Your task to perform on an android device: Show me productivity apps on the Play Store Image 0: 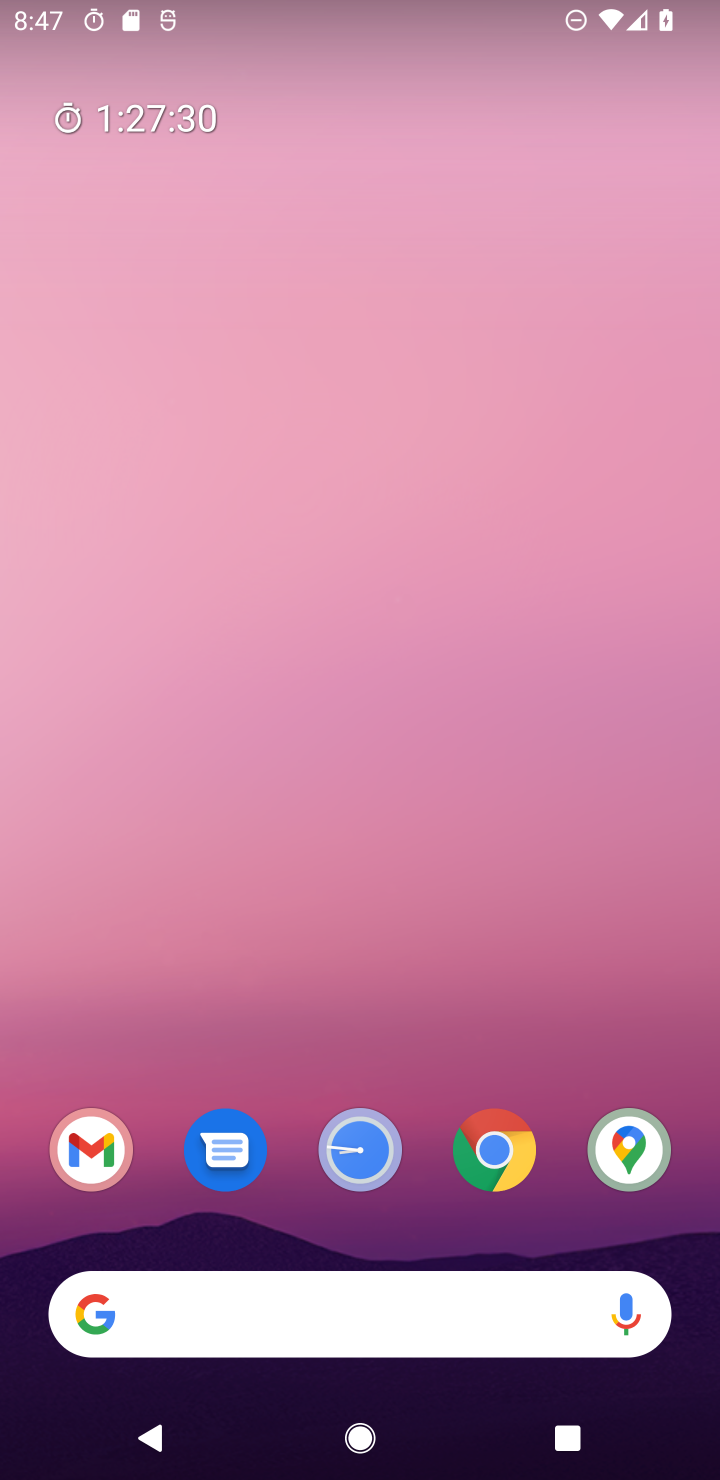
Step 0: drag from (477, 929) to (556, 283)
Your task to perform on an android device: Show me productivity apps on the Play Store Image 1: 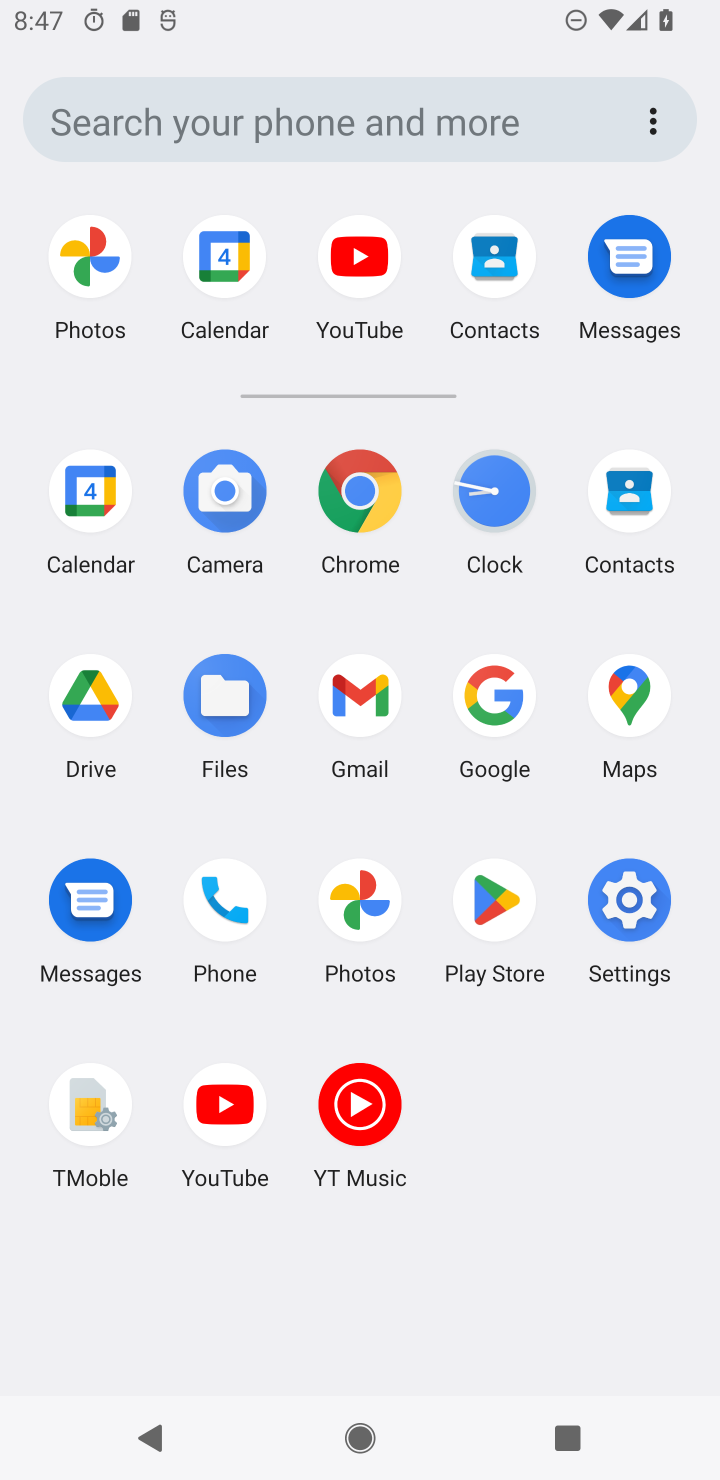
Step 1: click (511, 911)
Your task to perform on an android device: Show me productivity apps on the Play Store Image 2: 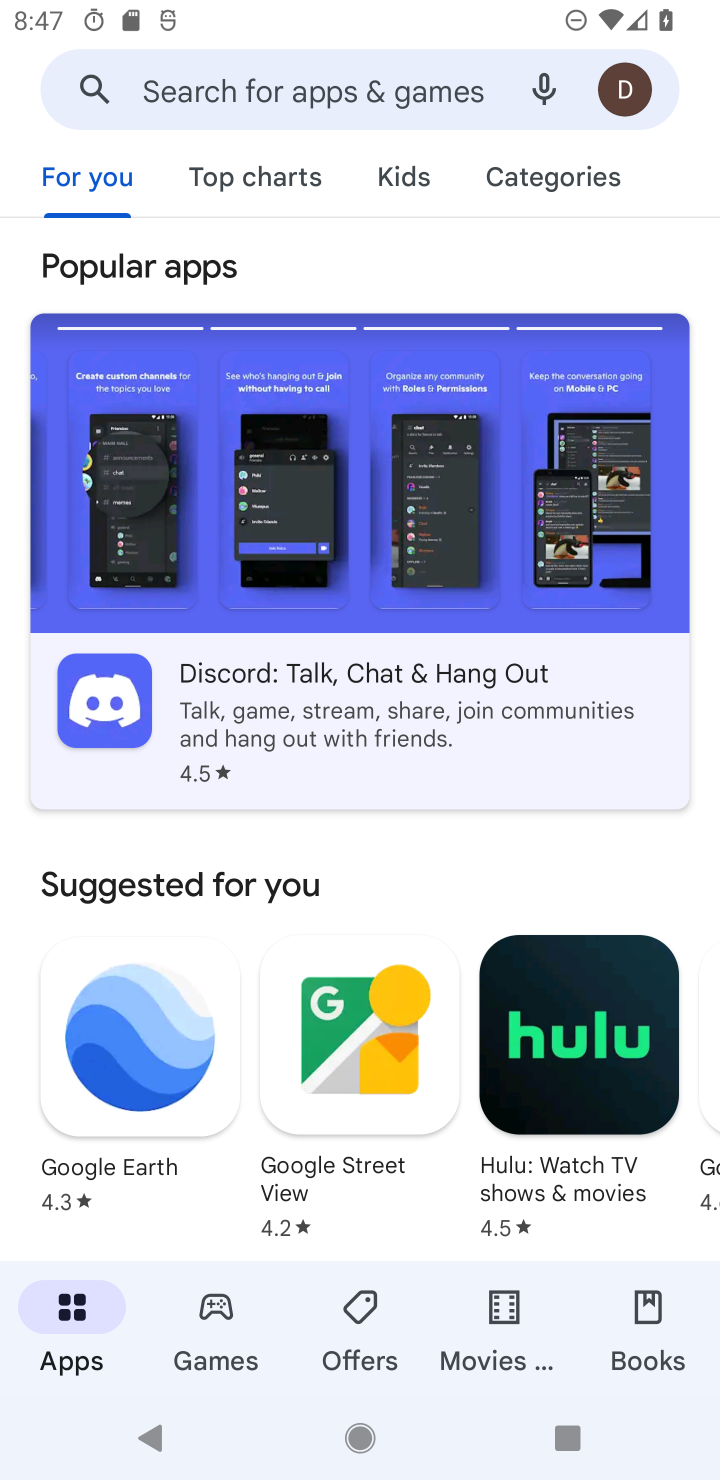
Step 2: drag from (388, 1003) to (377, 273)
Your task to perform on an android device: Show me productivity apps on the Play Store Image 3: 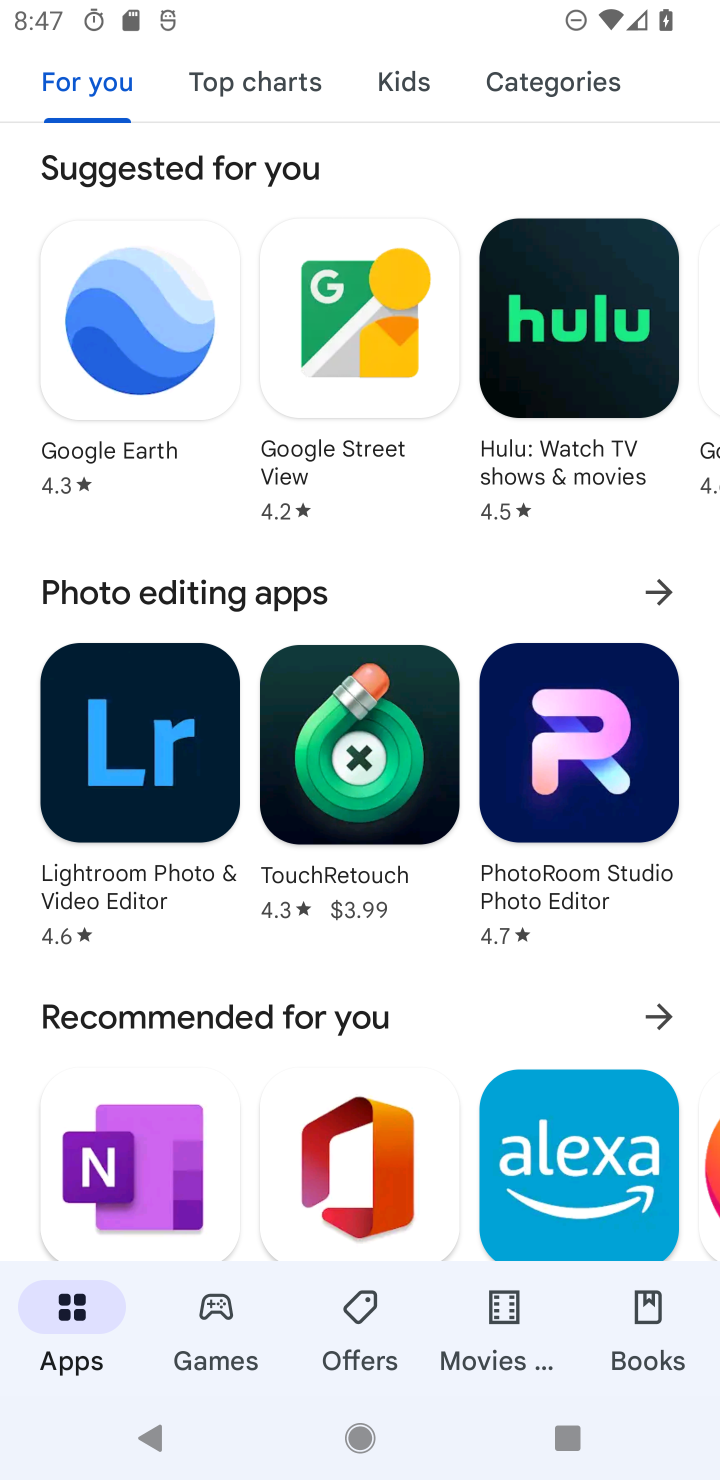
Step 3: drag from (369, 1109) to (556, 190)
Your task to perform on an android device: Show me productivity apps on the Play Store Image 4: 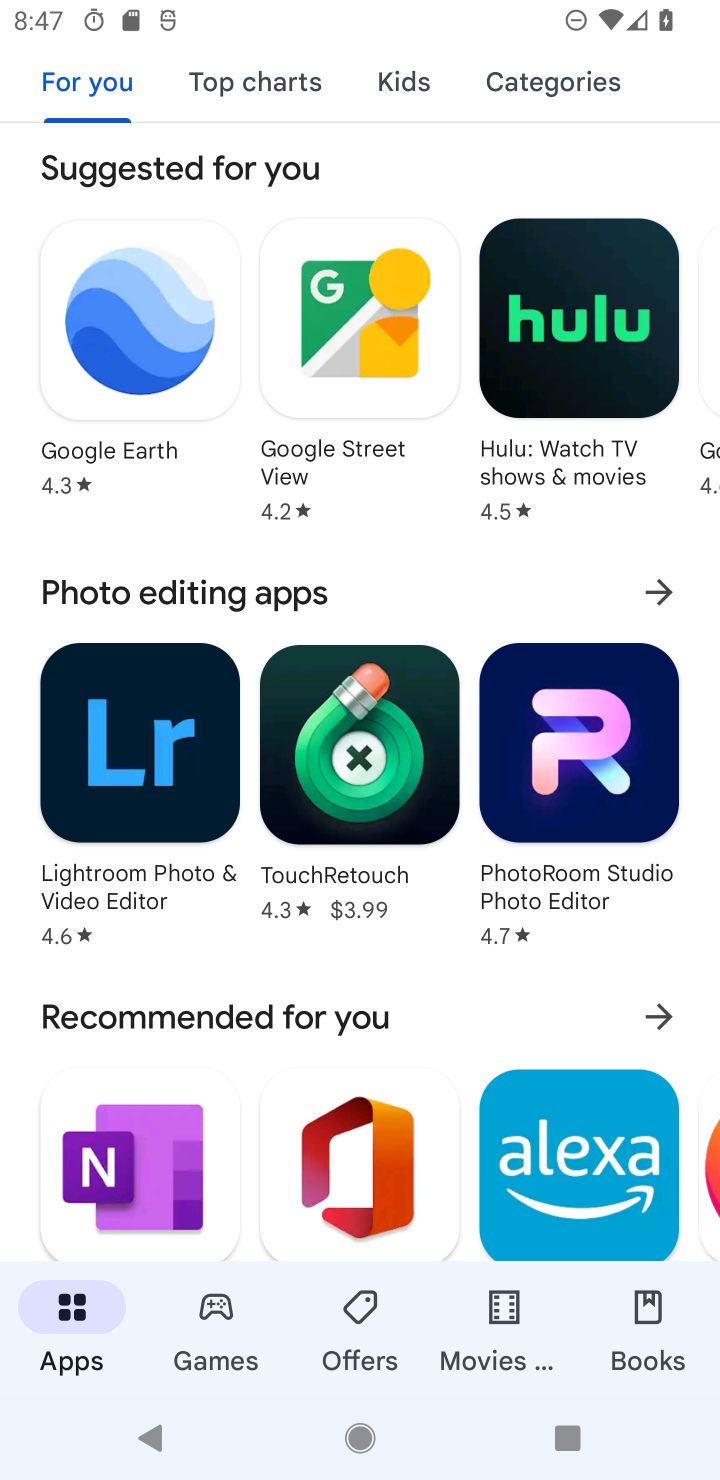
Step 4: drag from (429, 1119) to (522, 38)
Your task to perform on an android device: Show me productivity apps on the Play Store Image 5: 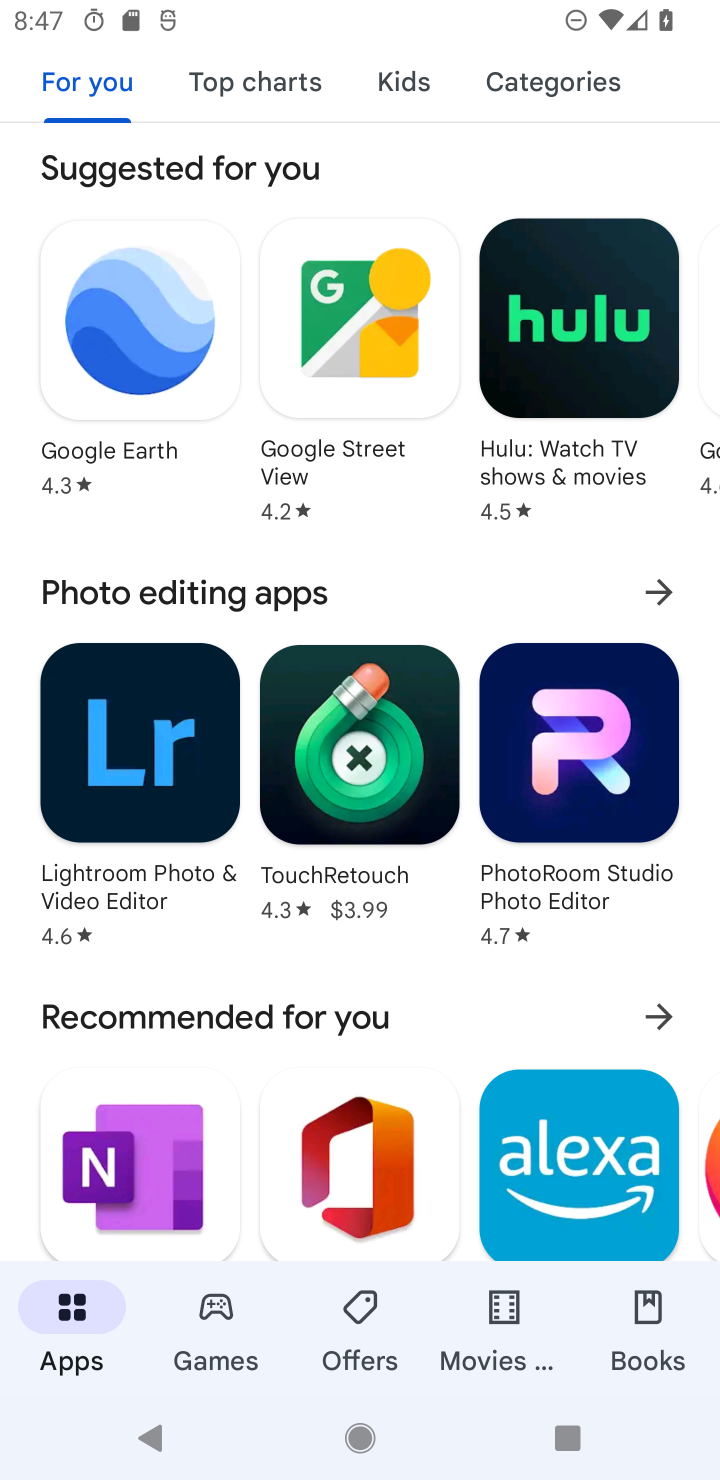
Step 5: drag from (415, 1141) to (575, 96)
Your task to perform on an android device: Show me productivity apps on the Play Store Image 6: 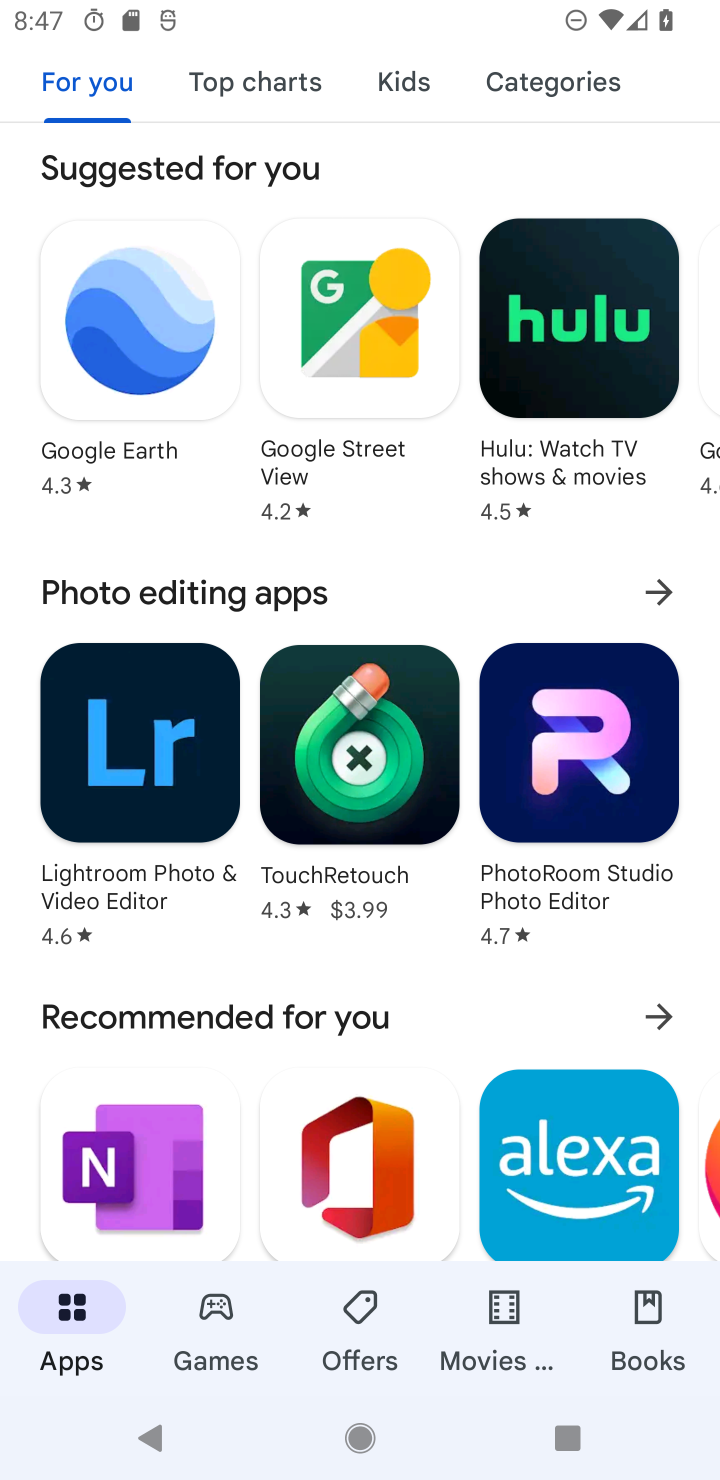
Step 6: drag from (534, 1013) to (521, 11)
Your task to perform on an android device: Show me productivity apps on the Play Store Image 7: 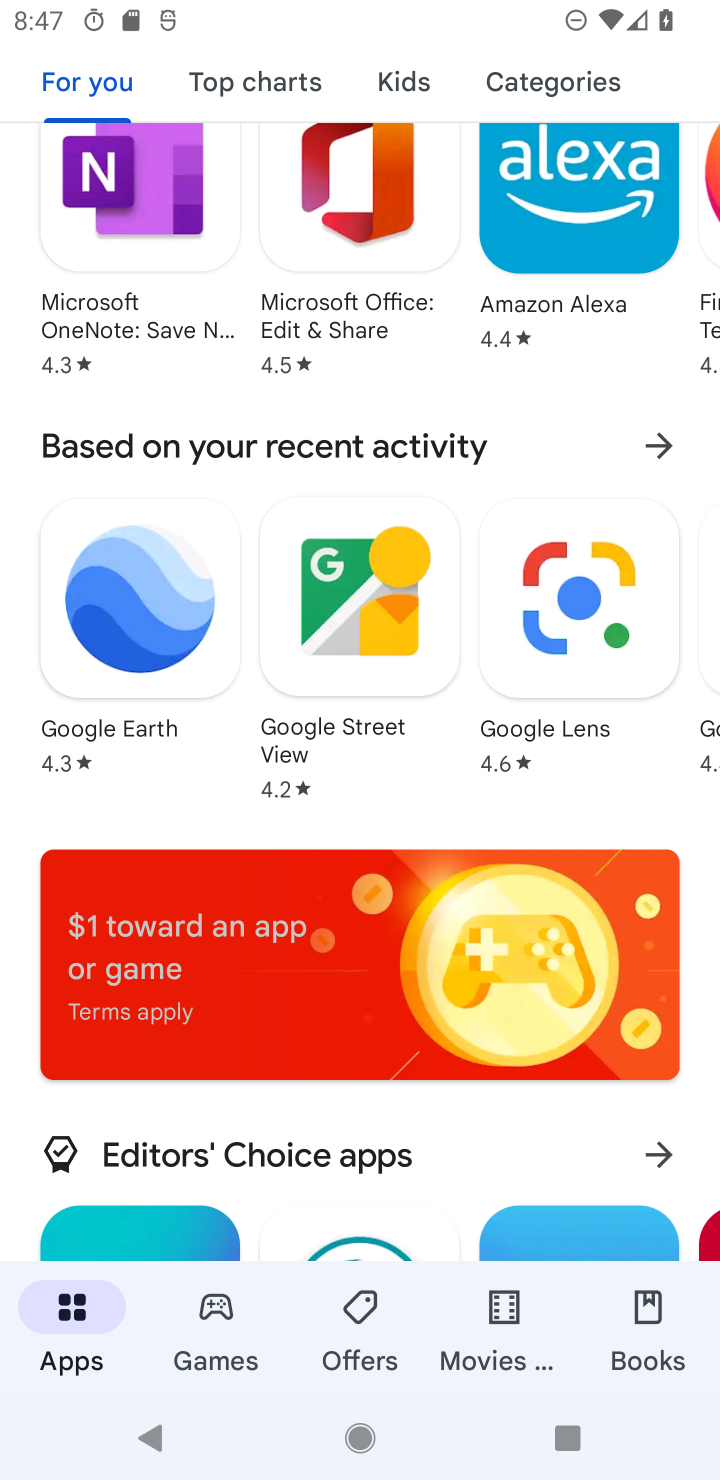
Step 7: drag from (408, 1153) to (483, 33)
Your task to perform on an android device: Show me productivity apps on the Play Store Image 8: 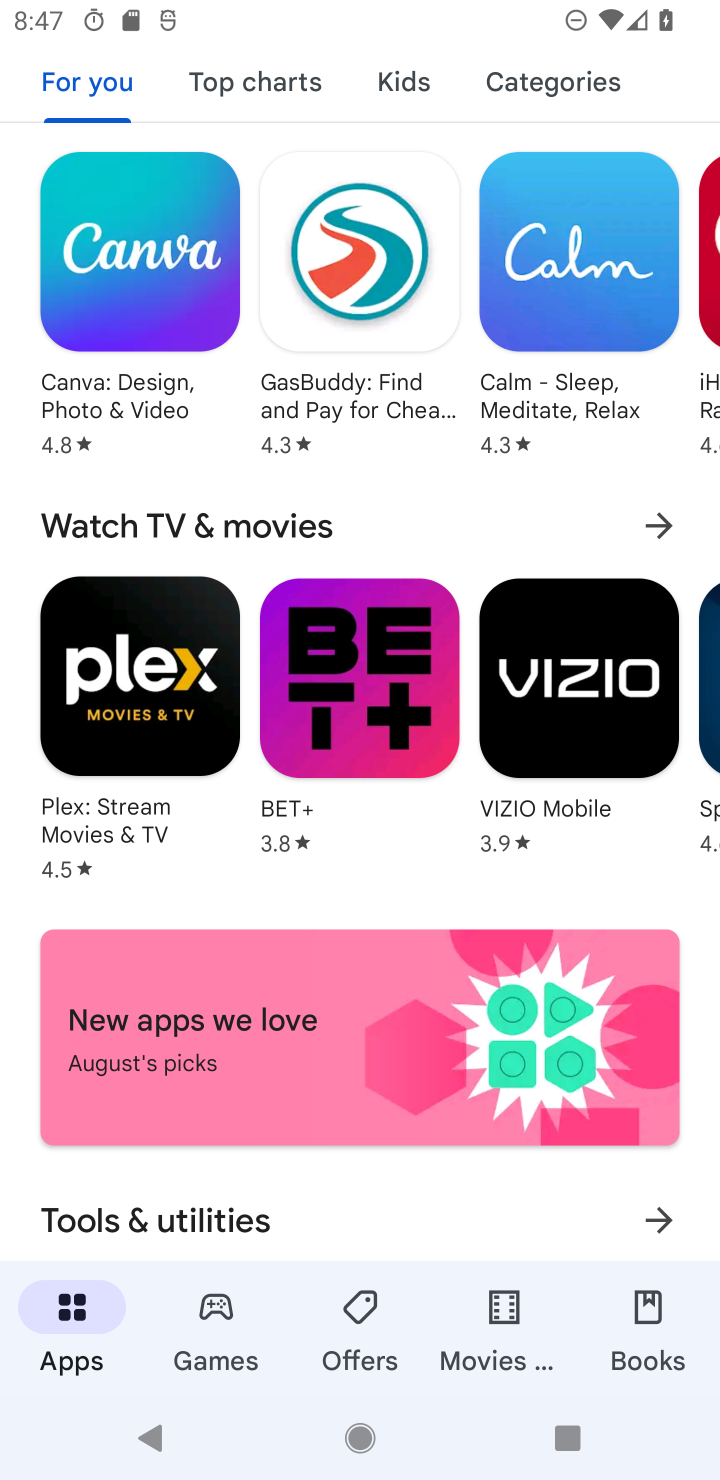
Step 8: drag from (404, 1212) to (465, 114)
Your task to perform on an android device: Show me productivity apps on the Play Store Image 9: 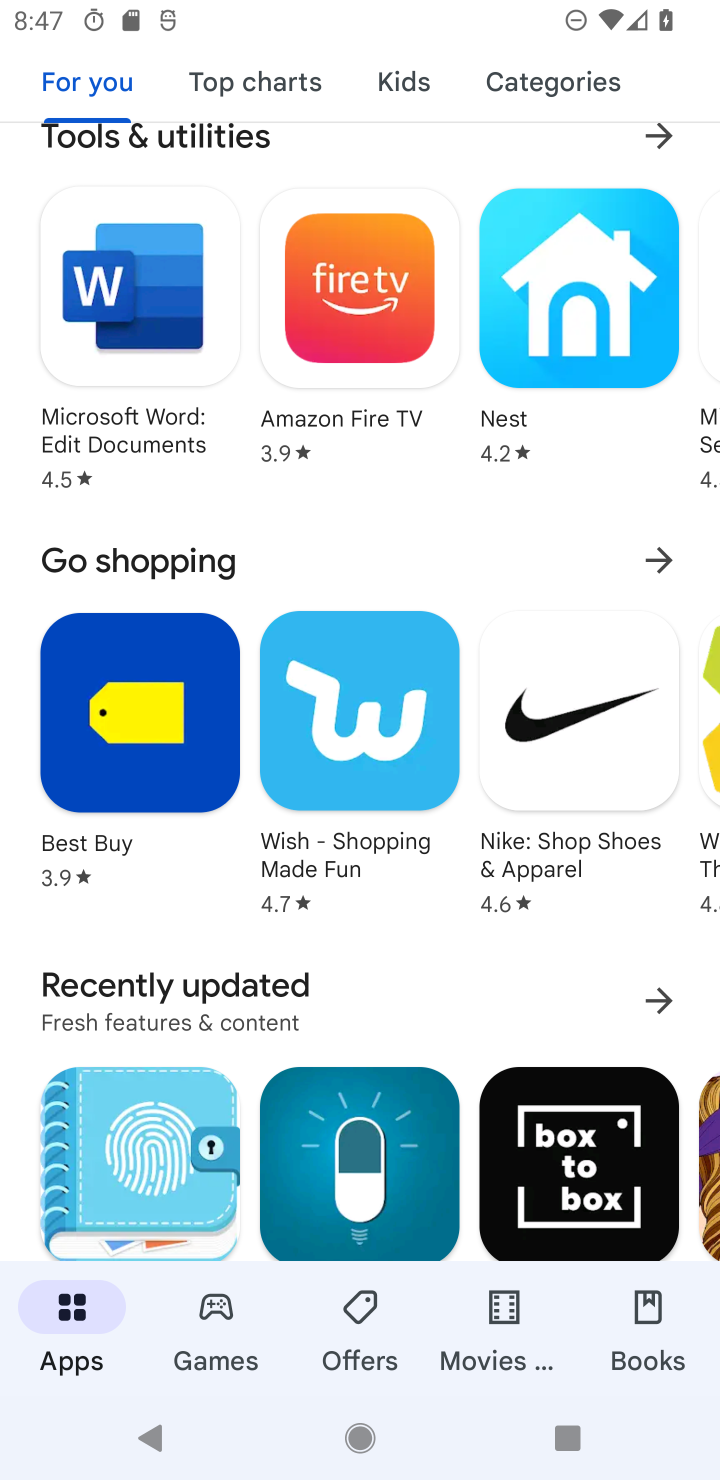
Step 9: drag from (355, 1020) to (346, 233)
Your task to perform on an android device: Show me productivity apps on the Play Store Image 10: 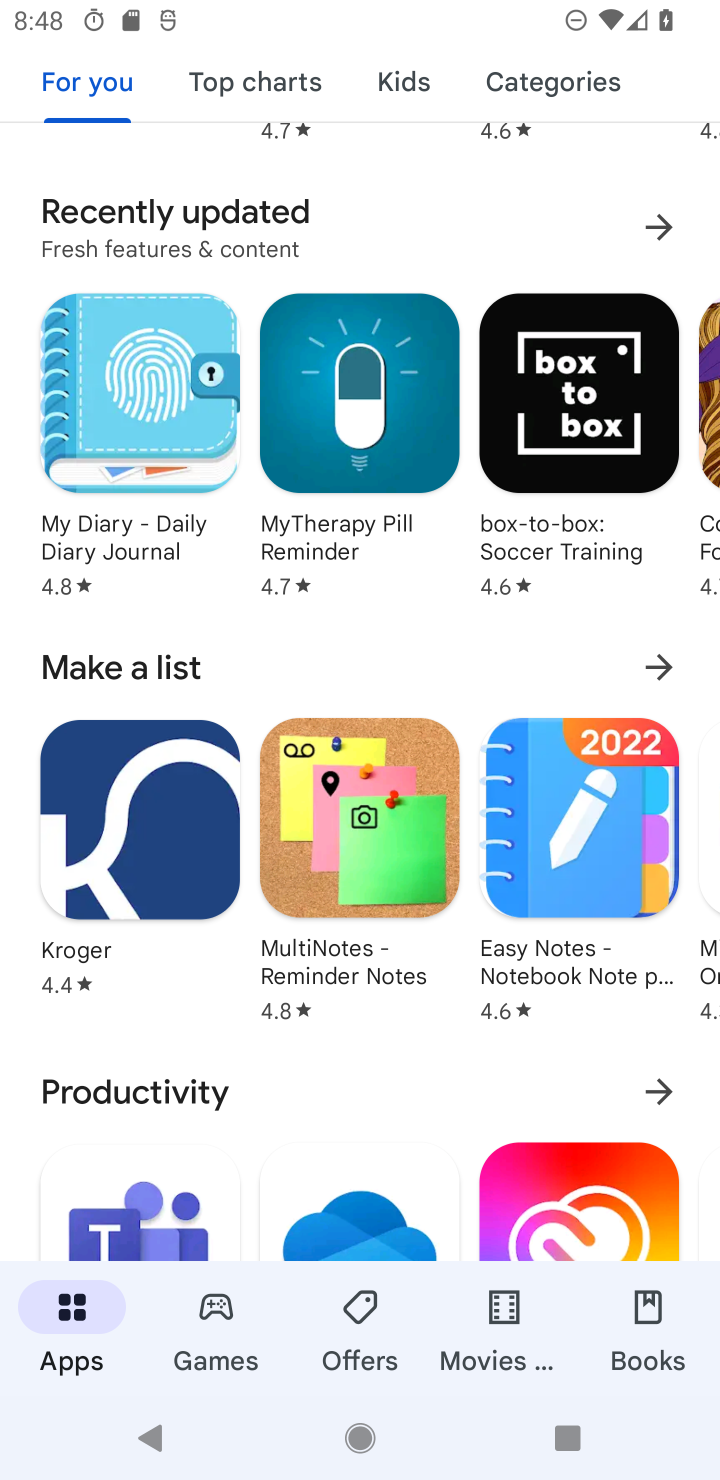
Step 10: click (660, 1074)
Your task to perform on an android device: Show me productivity apps on the Play Store Image 11: 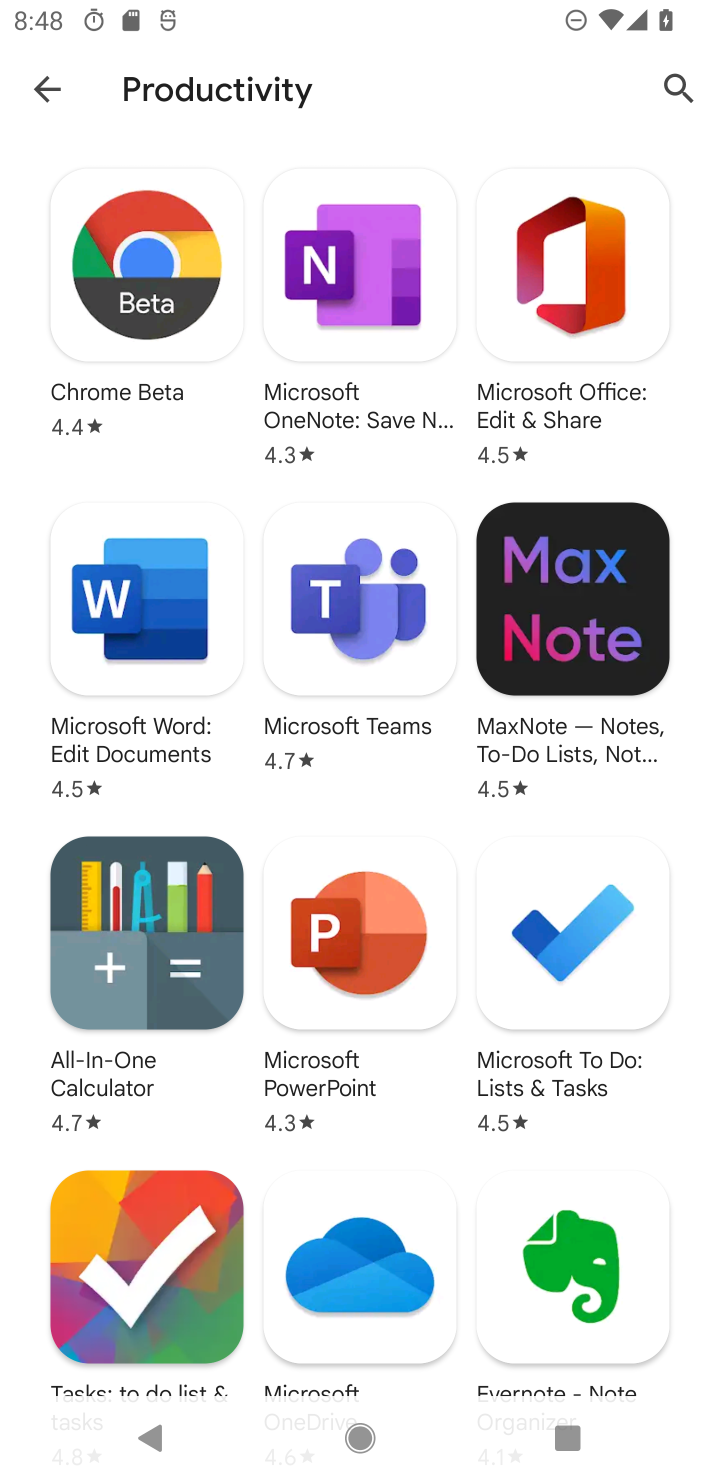
Step 11: task complete